Your task to perform on an android device: Turn on the flashlight Image 0: 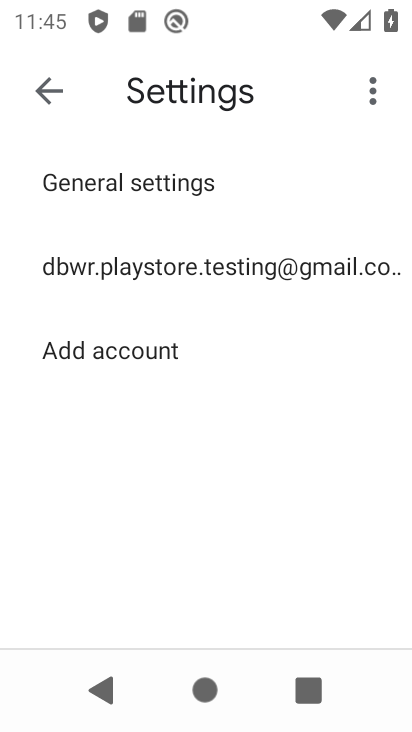
Step 0: press home button
Your task to perform on an android device: Turn on the flashlight Image 1: 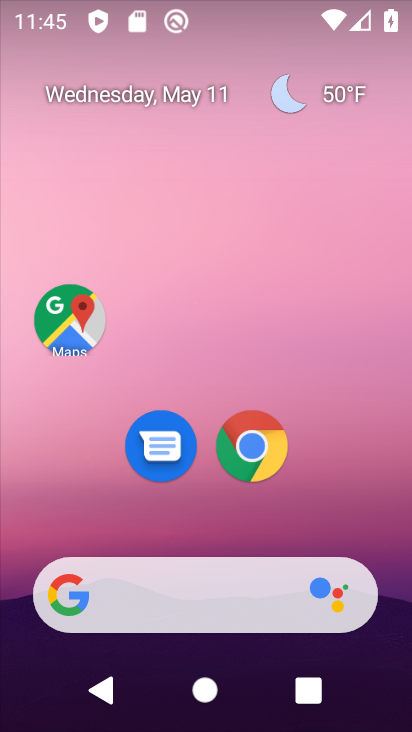
Step 1: drag from (356, 447) to (358, 173)
Your task to perform on an android device: Turn on the flashlight Image 2: 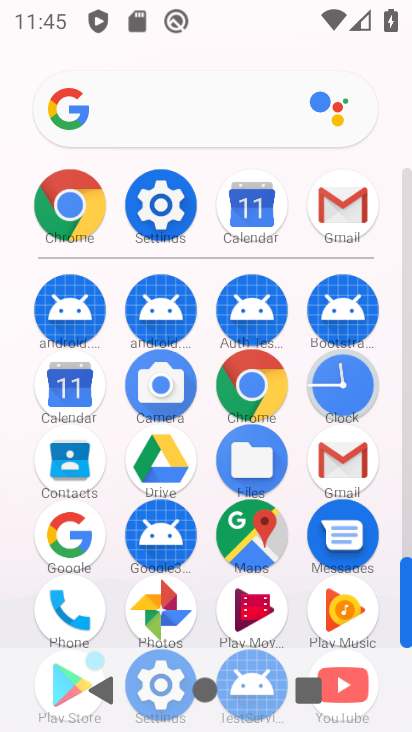
Step 2: click (160, 200)
Your task to perform on an android device: Turn on the flashlight Image 3: 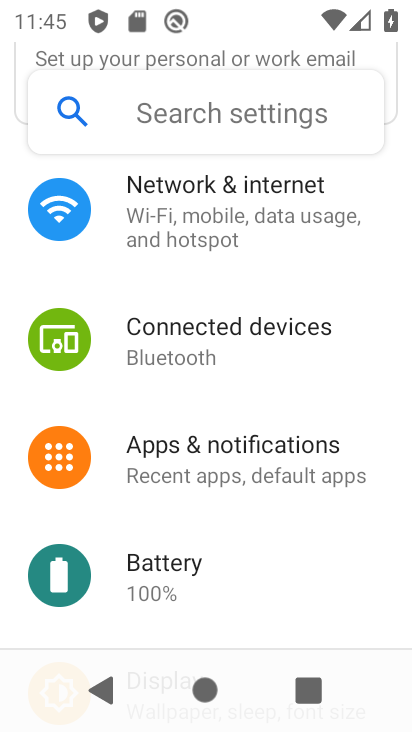
Step 3: drag from (303, 550) to (335, 184)
Your task to perform on an android device: Turn on the flashlight Image 4: 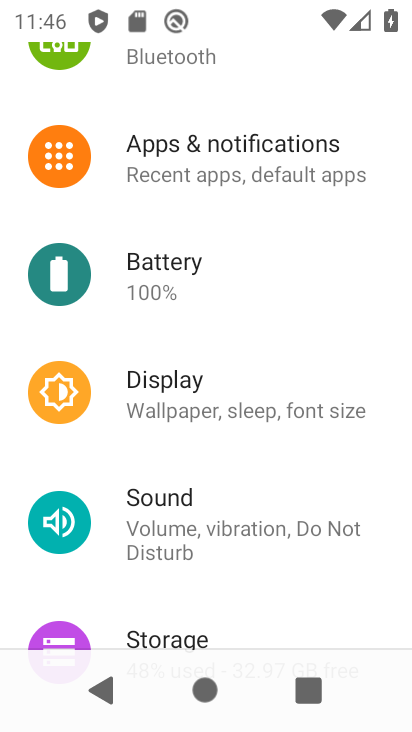
Step 4: drag from (240, 604) to (252, 283)
Your task to perform on an android device: Turn on the flashlight Image 5: 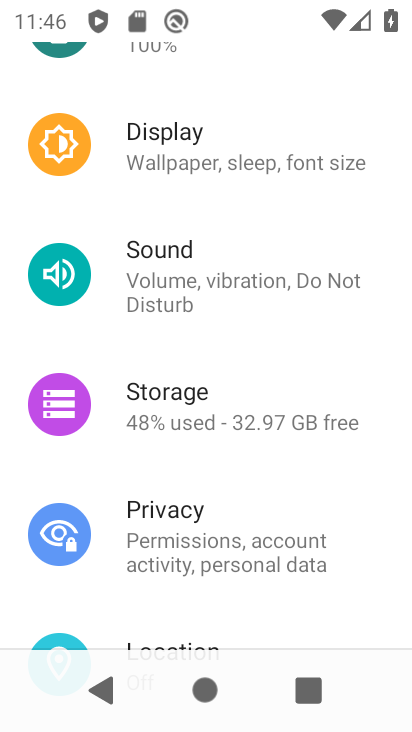
Step 5: click (243, 151)
Your task to perform on an android device: Turn on the flashlight Image 6: 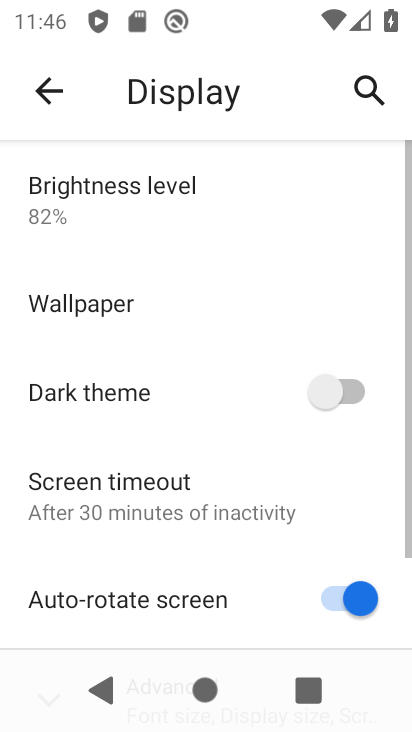
Step 6: drag from (232, 607) to (192, 139)
Your task to perform on an android device: Turn on the flashlight Image 7: 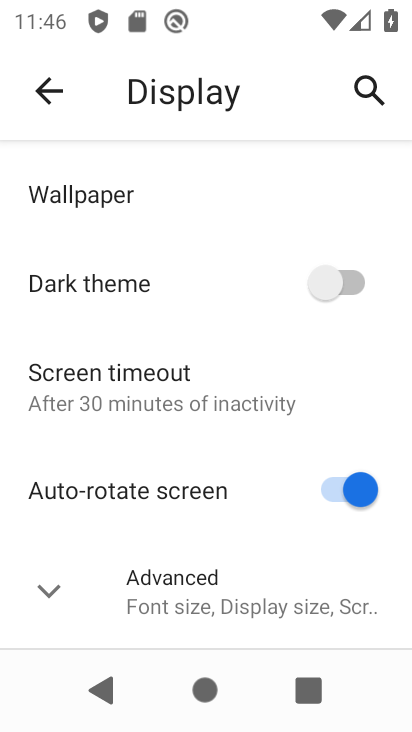
Step 7: click (142, 584)
Your task to perform on an android device: Turn on the flashlight Image 8: 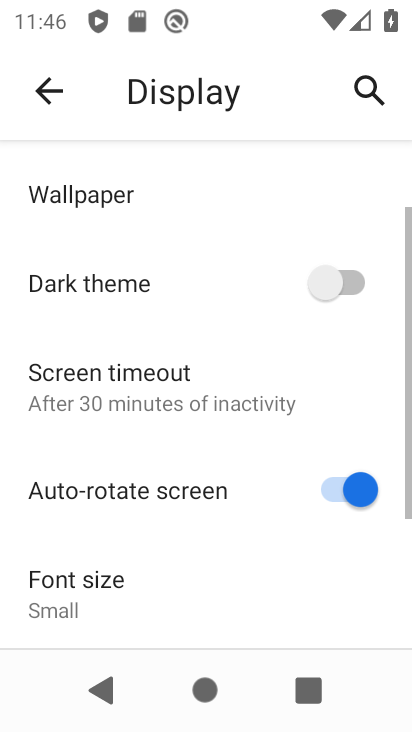
Step 8: task complete